Your task to perform on an android device: Search for vegetarian restaurants on Maps Image 0: 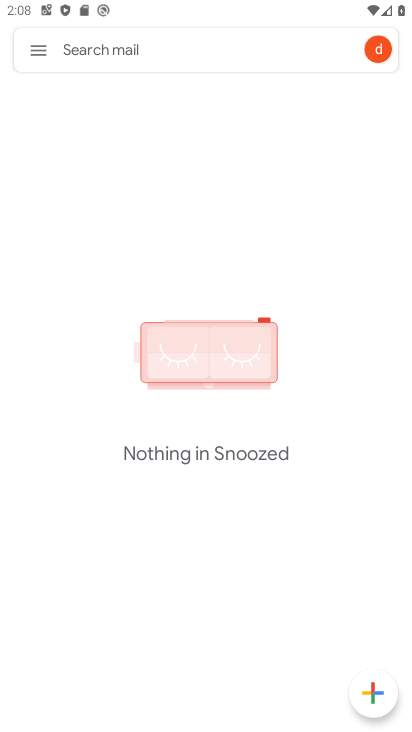
Step 0: press home button
Your task to perform on an android device: Search for vegetarian restaurants on Maps Image 1: 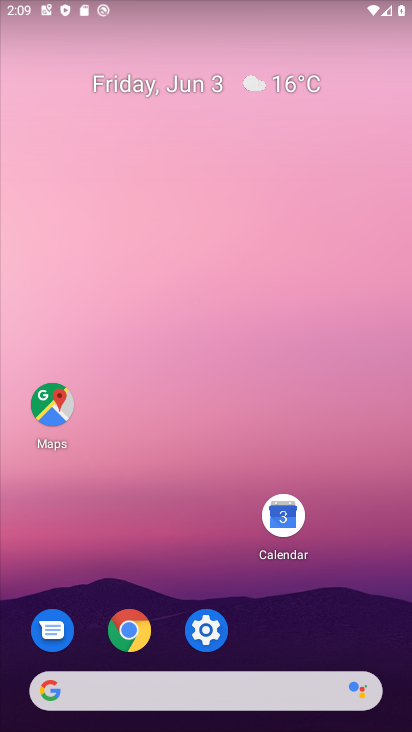
Step 1: drag from (257, 425) to (265, 314)
Your task to perform on an android device: Search for vegetarian restaurants on Maps Image 2: 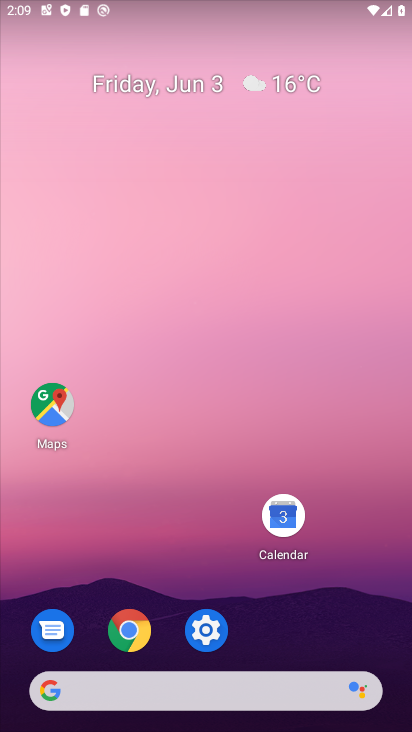
Step 2: drag from (261, 695) to (168, 178)
Your task to perform on an android device: Search for vegetarian restaurants on Maps Image 3: 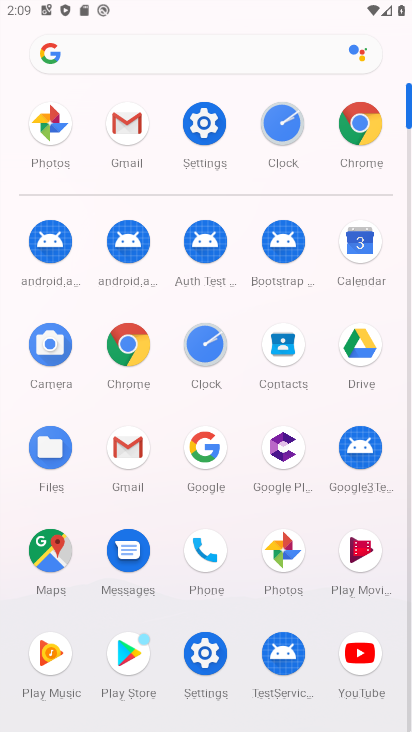
Step 3: click (43, 549)
Your task to perform on an android device: Search for vegetarian restaurants on Maps Image 4: 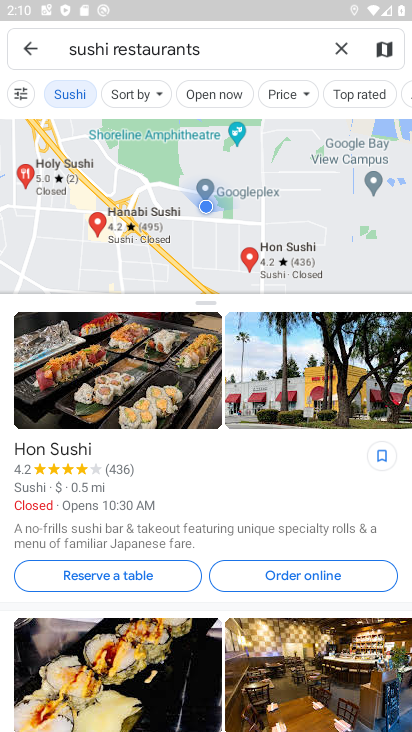
Step 4: click (337, 52)
Your task to perform on an android device: Search for vegetarian restaurants on Maps Image 5: 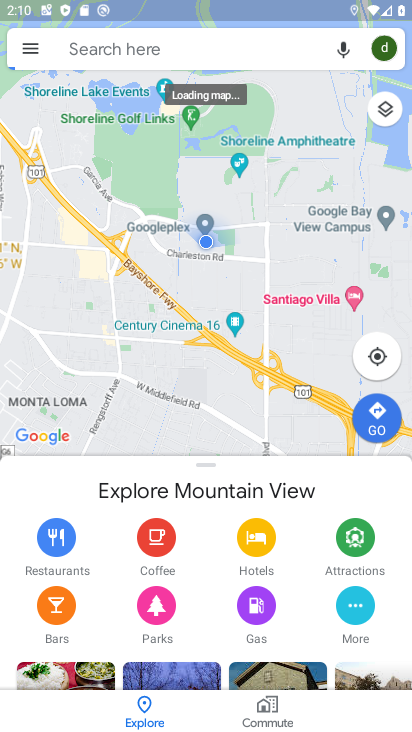
Step 5: click (303, 55)
Your task to perform on an android device: Search for vegetarian restaurants on Maps Image 6: 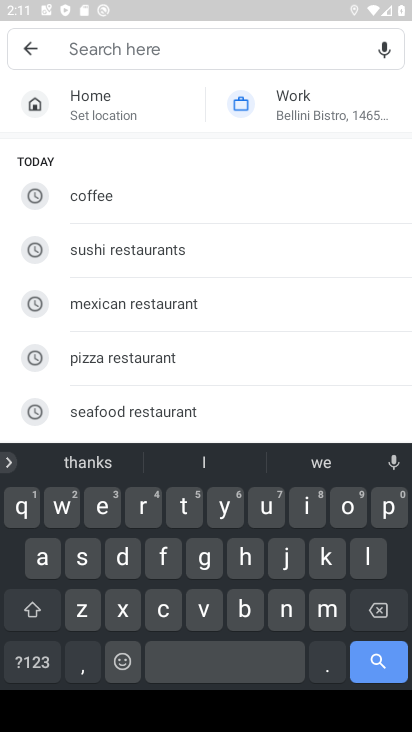
Step 6: click (205, 607)
Your task to perform on an android device: Search for vegetarian restaurants on Maps Image 7: 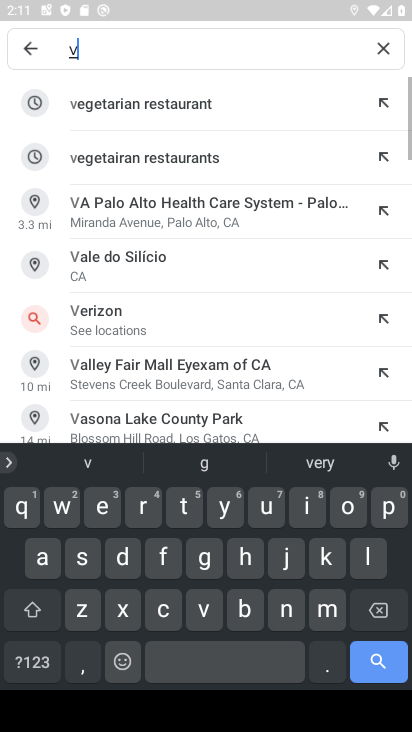
Step 7: click (156, 107)
Your task to perform on an android device: Search for vegetarian restaurants on Maps Image 8: 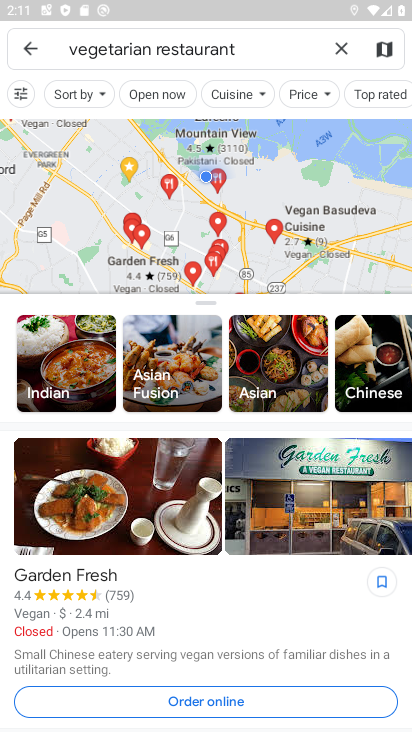
Step 8: task complete